Your task to perform on an android device: toggle show notifications on the lock screen Image 0: 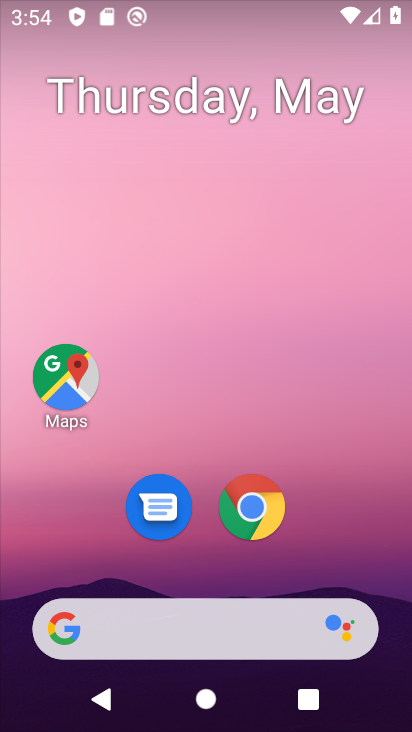
Step 0: drag from (349, 607) to (215, 30)
Your task to perform on an android device: toggle show notifications on the lock screen Image 1: 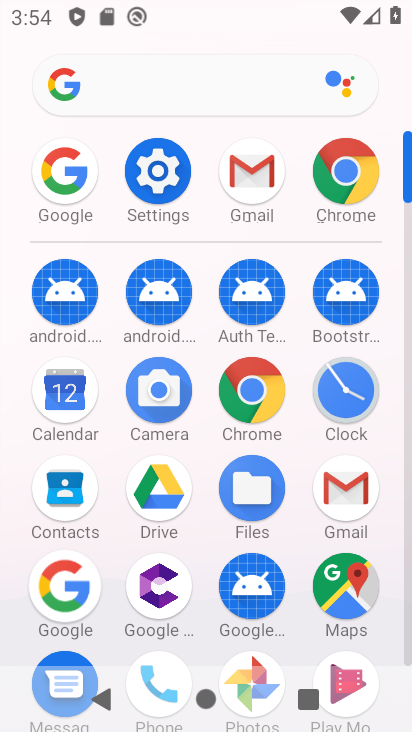
Step 1: click (167, 171)
Your task to perform on an android device: toggle show notifications on the lock screen Image 2: 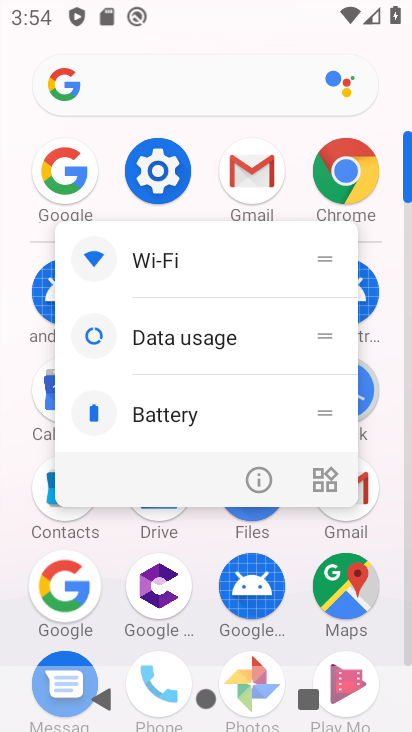
Step 2: click (163, 177)
Your task to perform on an android device: toggle show notifications on the lock screen Image 3: 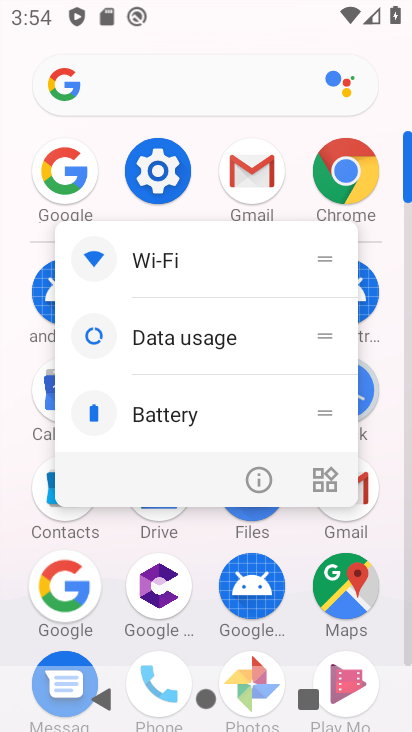
Step 3: click (157, 181)
Your task to perform on an android device: toggle show notifications on the lock screen Image 4: 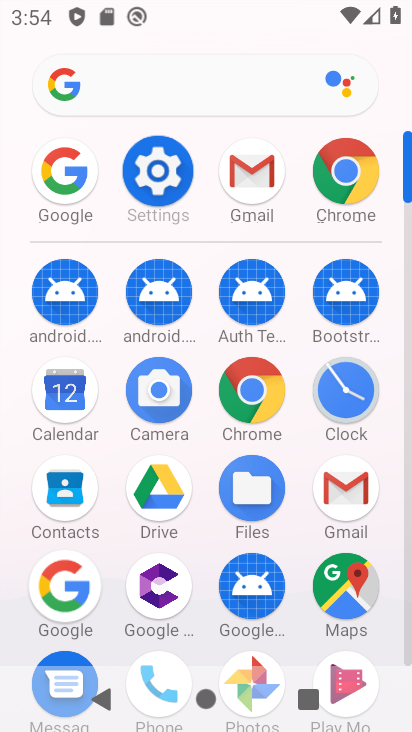
Step 4: click (159, 183)
Your task to perform on an android device: toggle show notifications on the lock screen Image 5: 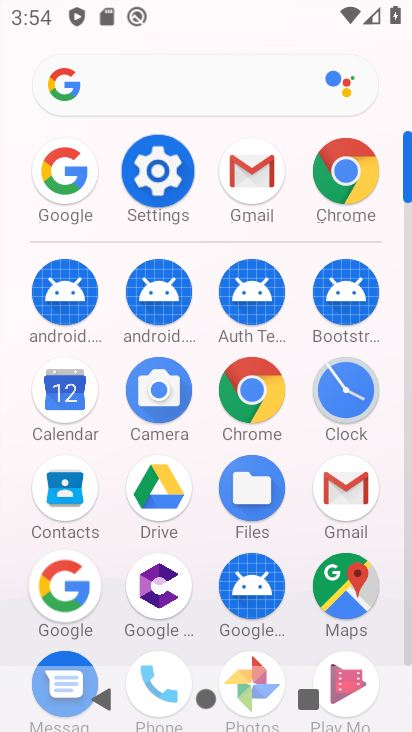
Step 5: click (163, 173)
Your task to perform on an android device: toggle show notifications on the lock screen Image 6: 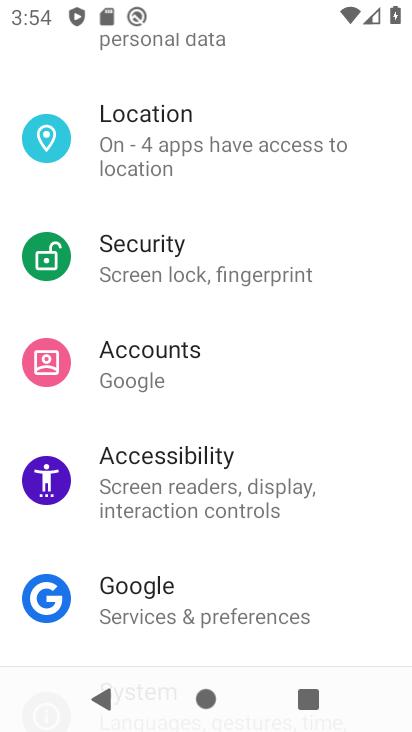
Step 6: click (165, 173)
Your task to perform on an android device: toggle show notifications on the lock screen Image 7: 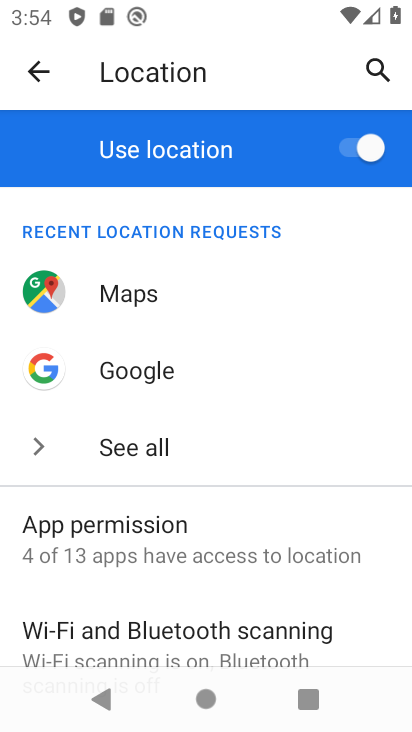
Step 7: click (44, 74)
Your task to perform on an android device: toggle show notifications on the lock screen Image 8: 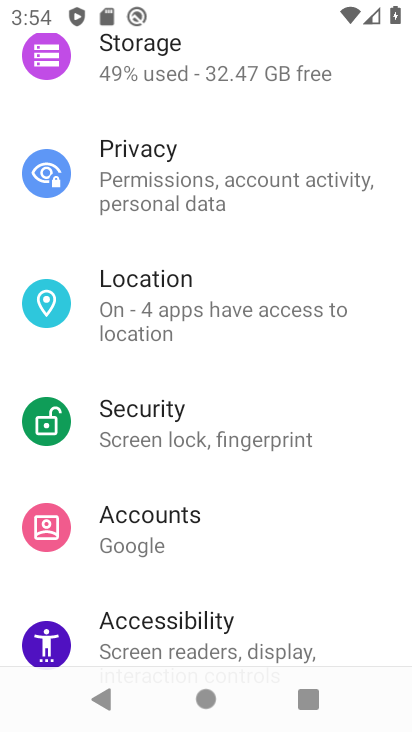
Step 8: drag from (166, 245) to (264, 479)
Your task to perform on an android device: toggle show notifications on the lock screen Image 9: 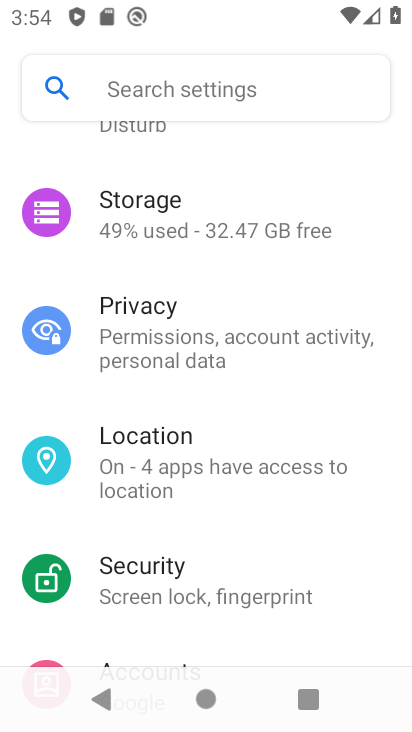
Step 9: drag from (149, 183) to (291, 509)
Your task to perform on an android device: toggle show notifications on the lock screen Image 10: 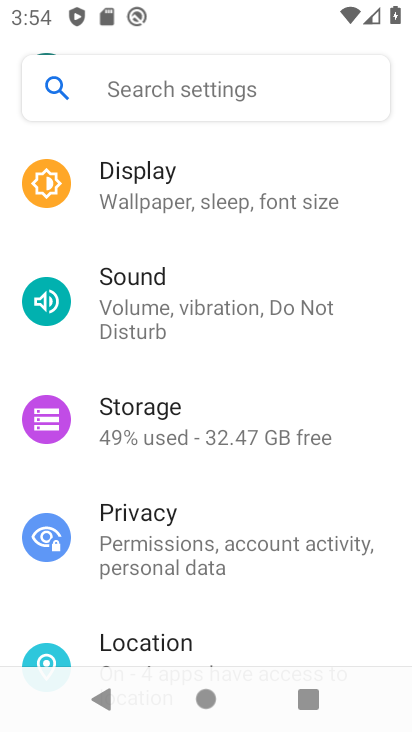
Step 10: drag from (244, 239) to (313, 521)
Your task to perform on an android device: toggle show notifications on the lock screen Image 11: 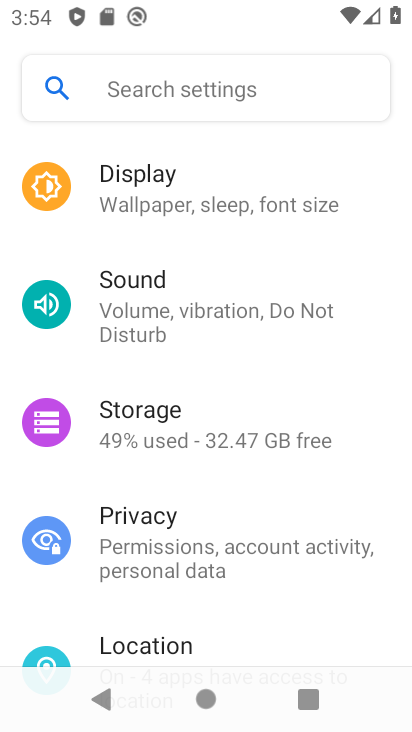
Step 11: drag from (260, 335) to (323, 523)
Your task to perform on an android device: toggle show notifications on the lock screen Image 12: 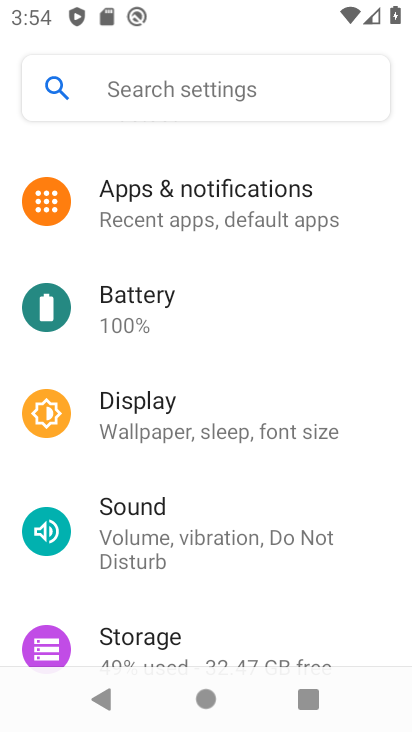
Step 12: drag from (221, 276) to (282, 505)
Your task to perform on an android device: toggle show notifications on the lock screen Image 13: 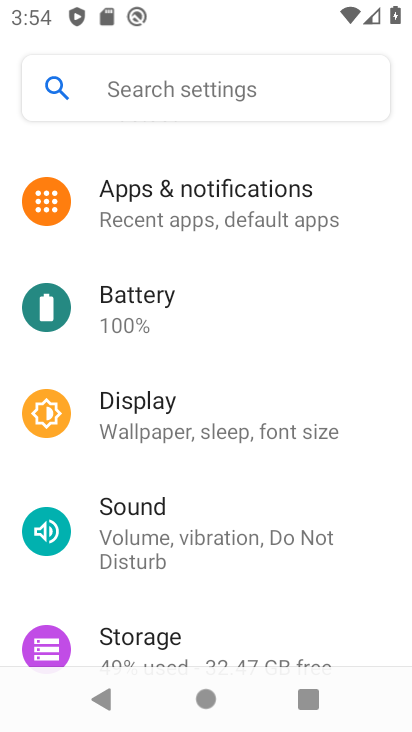
Step 13: drag from (200, 332) to (253, 597)
Your task to perform on an android device: toggle show notifications on the lock screen Image 14: 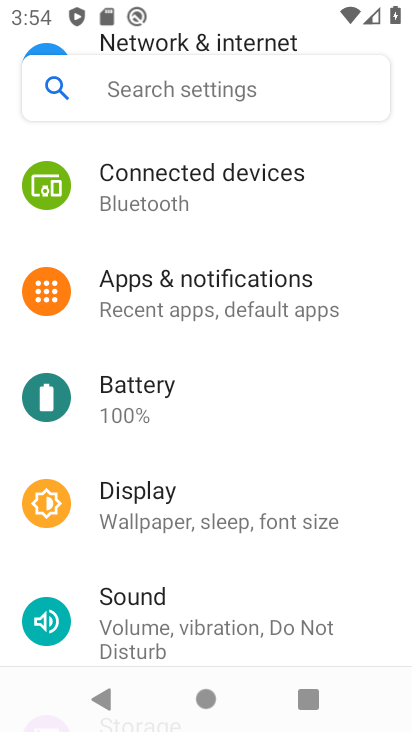
Step 14: drag from (177, 289) to (256, 565)
Your task to perform on an android device: toggle show notifications on the lock screen Image 15: 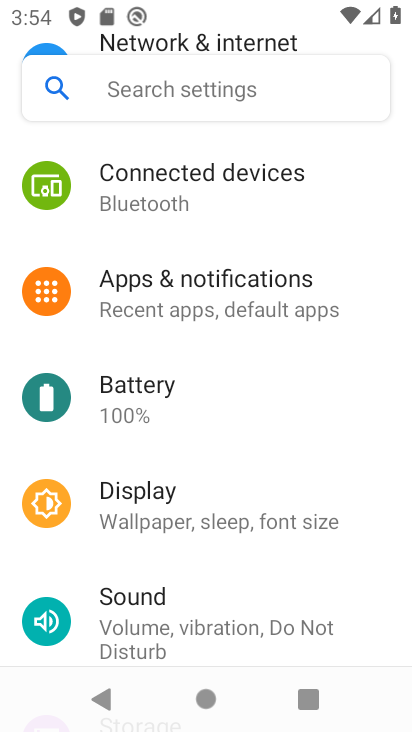
Step 15: drag from (199, 278) to (289, 609)
Your task to perform on an android device: toggle show notifications on the lock screen Image 16: 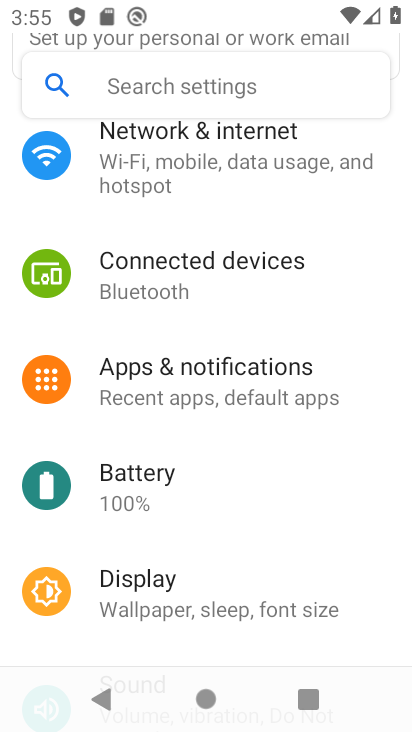
Step 16: drag from (199, 471) to (148, 190)
Your task to perform on an android device: toggle show notifications on the lock screen Image 17: 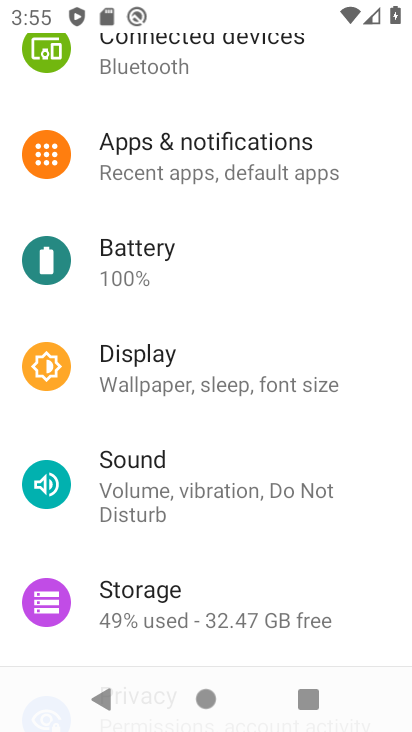
Step 17: drag from (211, 530) to (195, 159)
Your task to perform on an android device: toggle show notifications on the lock screen Image 18: 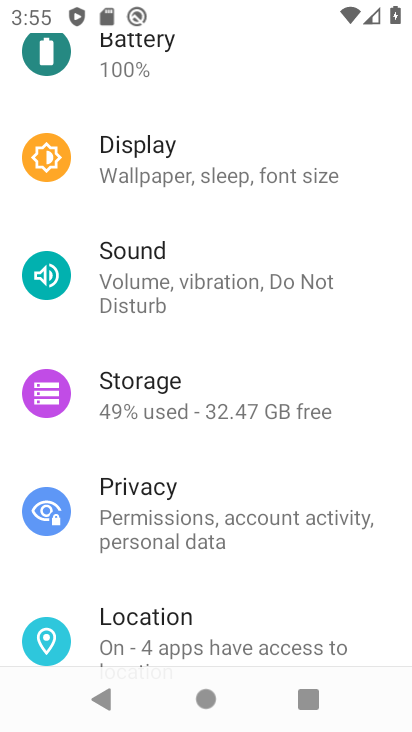
Step 18: click (166, 400)
Your task to perform on an android device: toggle show notifications on the lock screen Image 19: 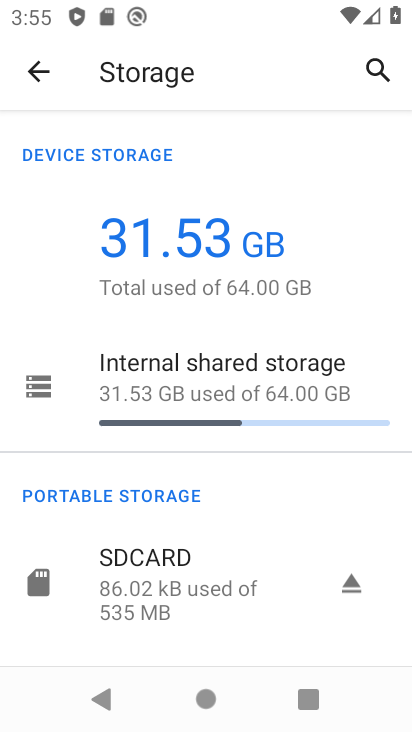
Step 19: click (32, 77)
Your task to perform on an android device: toggle show notifications on the lock screen Image 20: 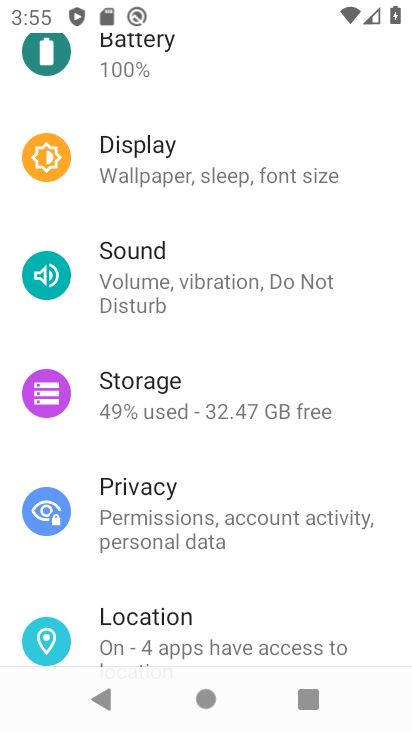
Step 20: click (175, 24)
Your task to perform on an android device: toggle show notifications on the lock screen Image 21: 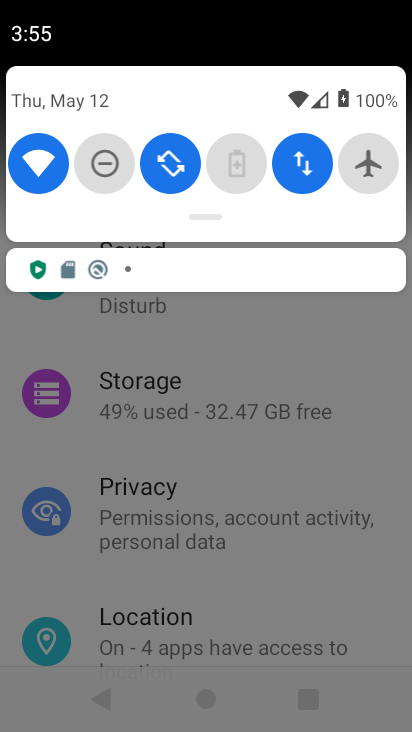
Step 21: drag from (187, 349) to (143, 85)
Your task to perform on an android device: toggle show notifications on the lock screen Image 22: 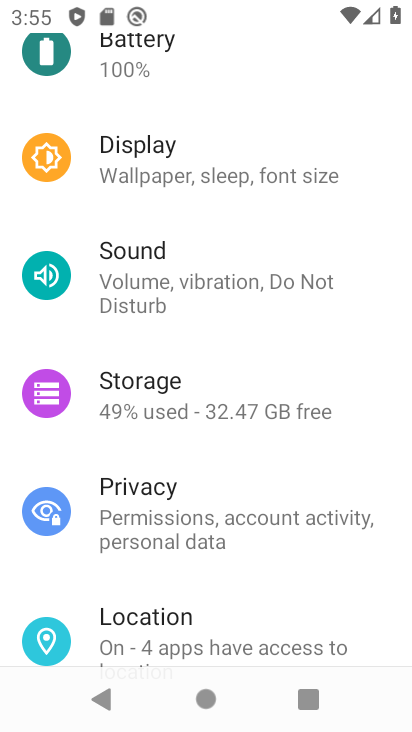
Step 22: drag from (202, 367) to (204, 84)
Your task to perform on an android device: toggle show notifications on the lock screen Image 23: 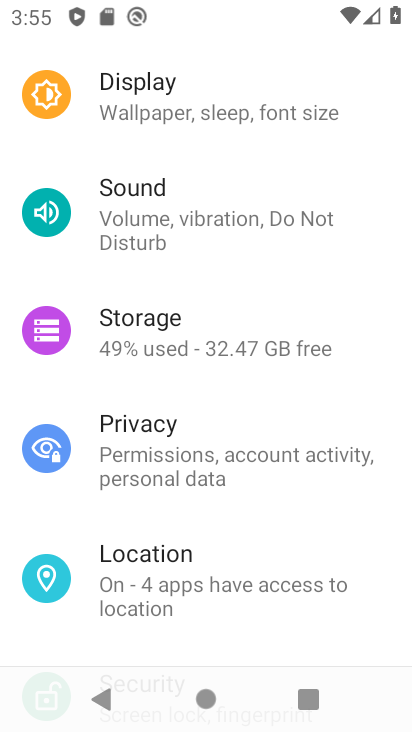
Step 23: drag from (202, 438) to (175, 114)
Your task to perform on an android device: toggle show notifications on the lock screen Image 24: 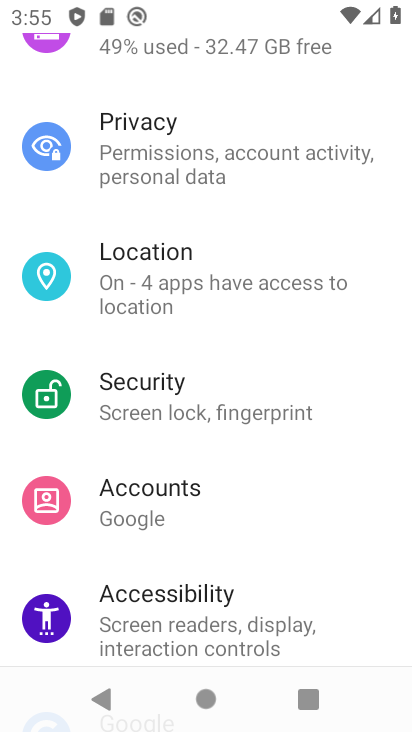
Step 24: drag from (154, 154) to (197, 496)
Your task to perform on an android device: toggle show notifications on the lock screen Image 25: 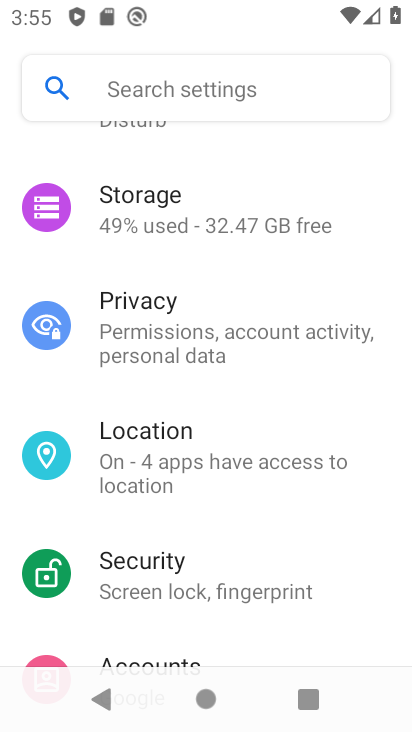
Step 25: drag from (167, 128) to (239, 484)
Your task to perform on an android device: toggle show notifications on the lock screen Image 26: 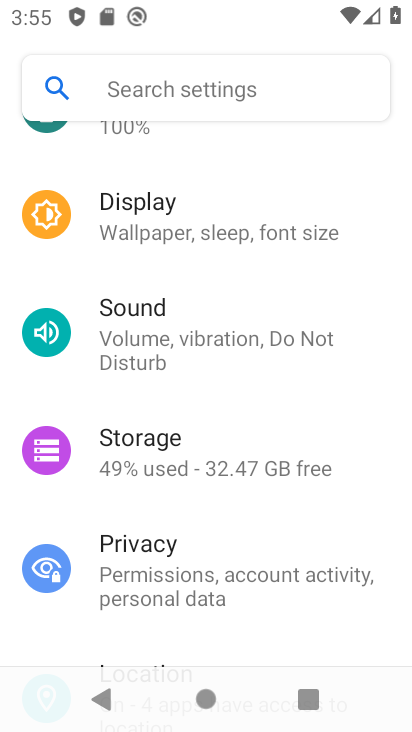
Step 26: drag from (185, 203) to (273, 489)
Your task to perform on an android device: toggle show notifications on the lock screen Image 27: 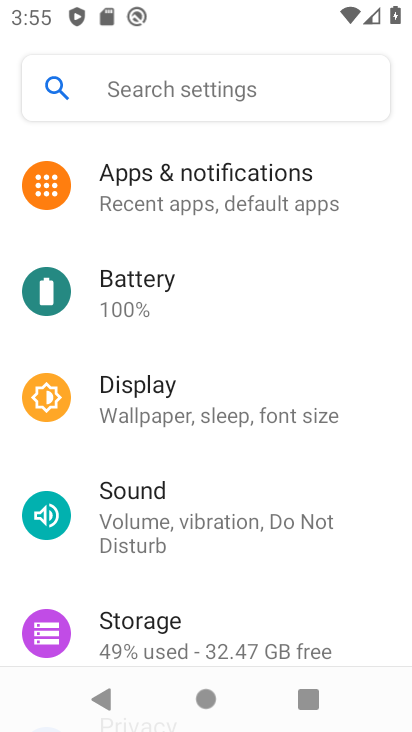
Step 27: drag from (235, 146) to (282, 493)
Your task to perform on an android device: toggle show notifications on the lock screen Image 28: 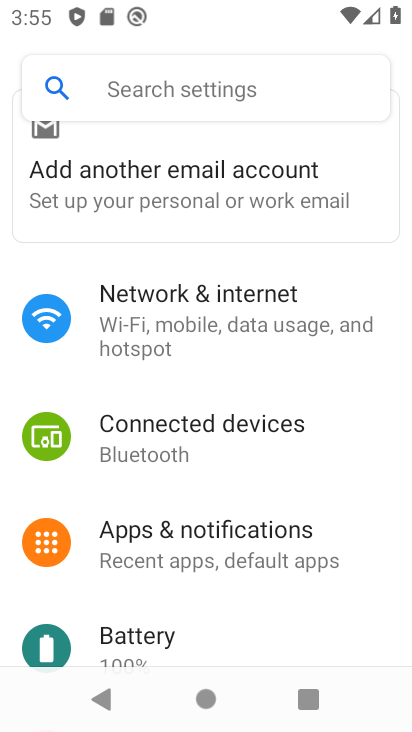
Step 28: drag from (187, 195) to (227, 472)
Your task to perform on an android device: toggle show notifications on the lock screen Image 29: 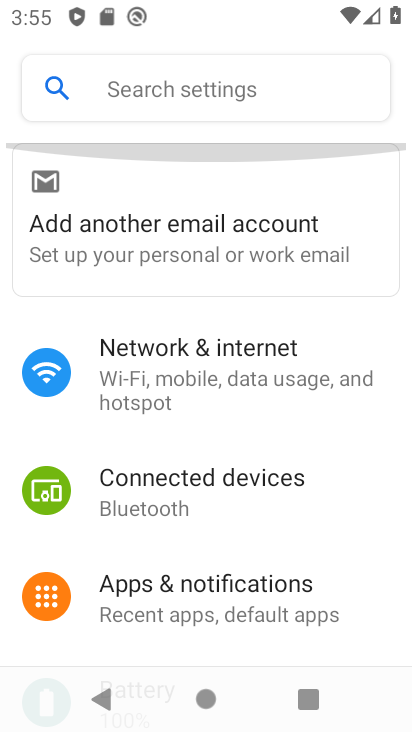
Step 29: drag from (157, 253) to (178, 528)
Your task to perform on an android device: toggle show notifications on the lock screen Image 30: 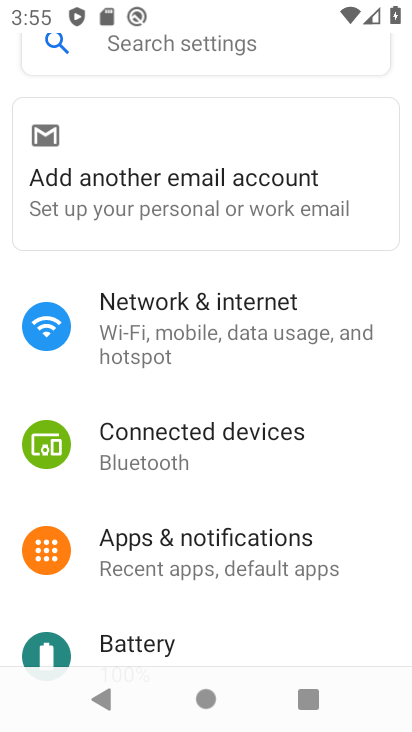
Step 30: click (189, 224)
Your task to perform on an android device: toggle show notifications on the lock screen Image 31: 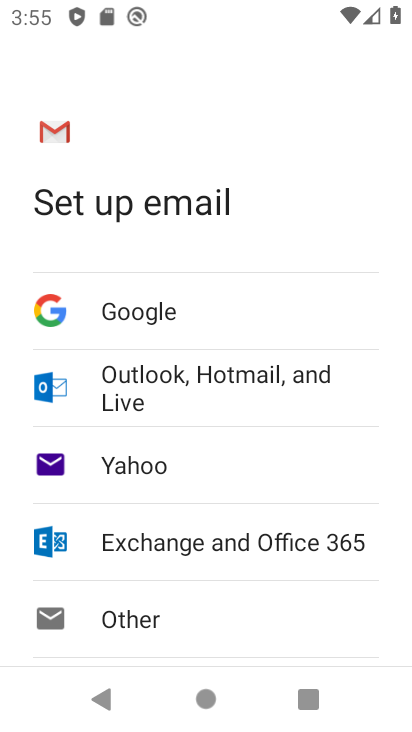
Step 31: press back button
Your task to perform on an android device: toggle show notifications on the lock screen Image 32: 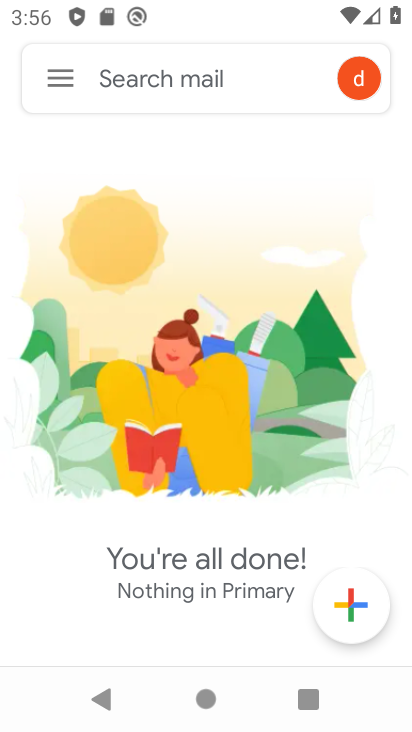
Step 32: drag from (205, 380) to (139, 151)
Your task to perform on an android device: toggle show notifications on the lock screen Image 33: 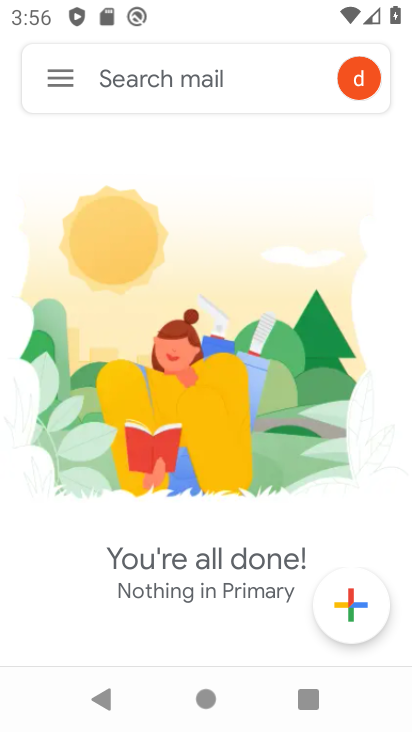
Step 33: drag from (257, 459) to (186, 128)
Your task to perform on an android device: toggle show notifications on the lock screen Image 34: 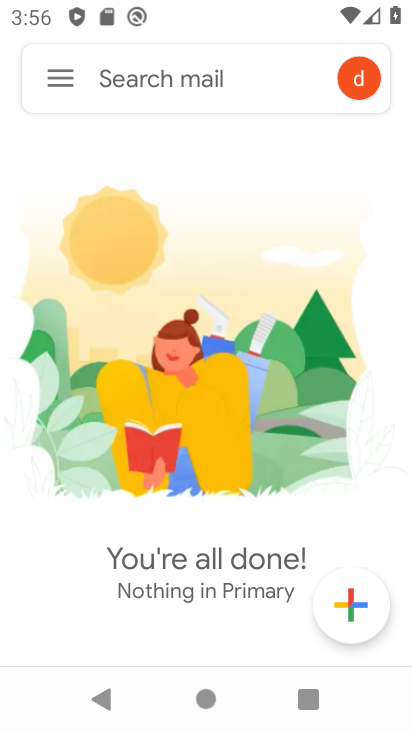
Step 34: drag from (215, 404) to (134, 38)
Your task to perform on an android device: toggle show notifications on the lock screen Image 35: 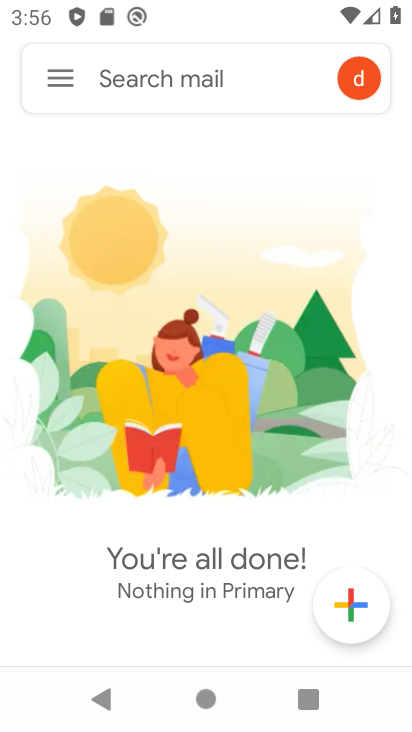
Step 35: drag from (226, 367) to (185, 105)
Your task to perform on an android device: toggle show notifications on the lock screen Image 36: 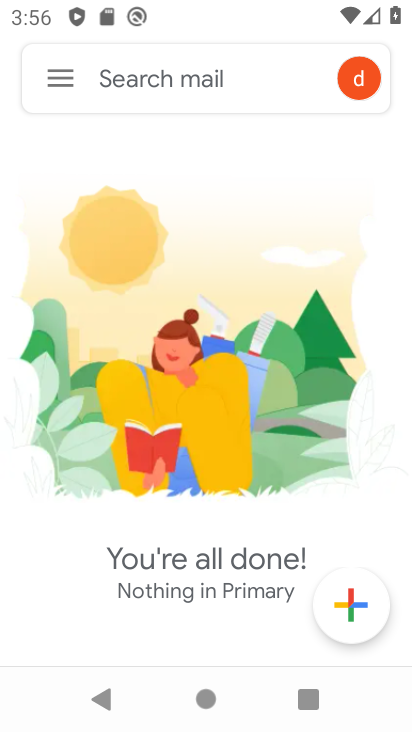
Step 36: drag from (207, 377) to (166, 137)
Your task to perform on an android device: toggle show notifications on the lock screen Image 37: 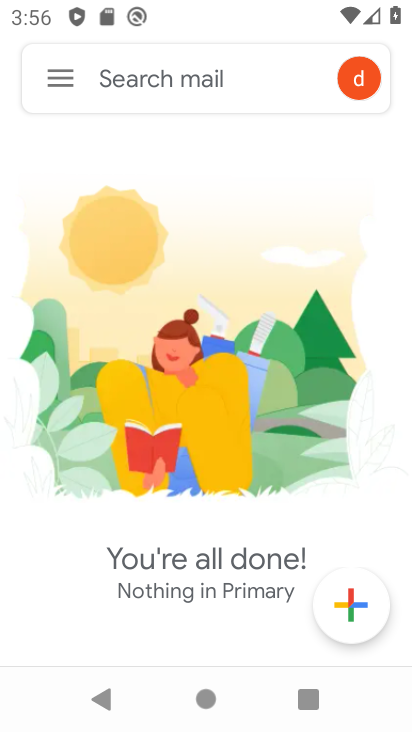
Step 37: press home button
Your task to perform on an android device: toggle show notifications on the lock screen Image 38: 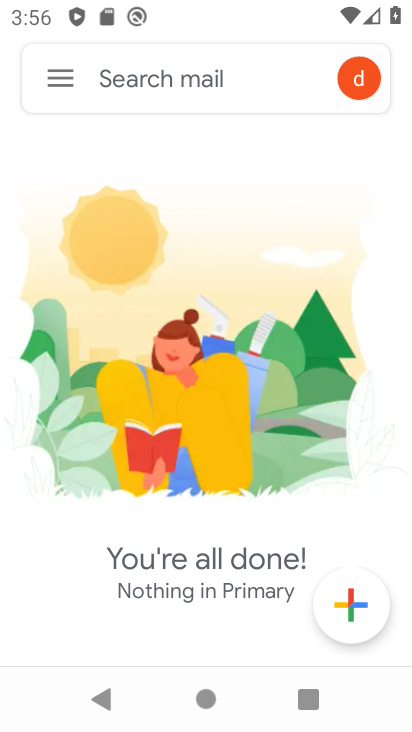
Step 38: press home button
Your task to perform on an android device: toggle show notifications on the lock screen Image 39: 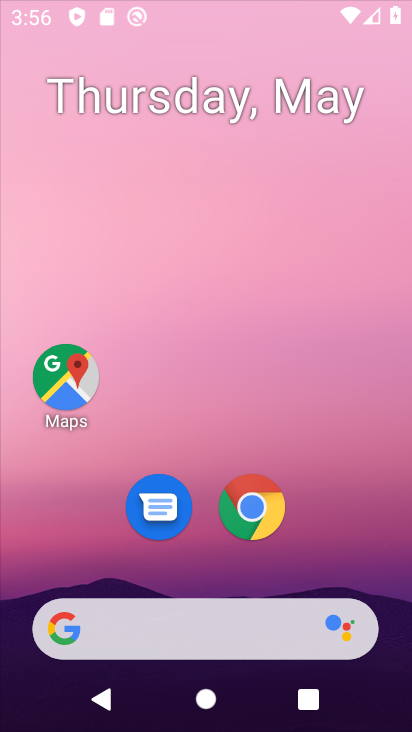
Step 39: press home button
Your task to perform on an android device: toggle show notifications on the lock screen Image 40: 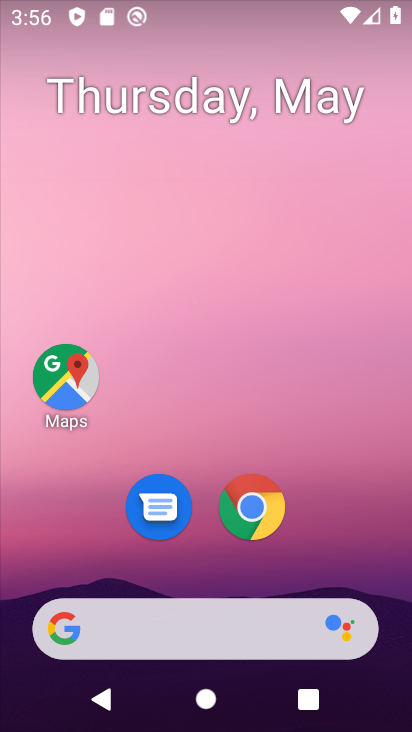
Step 40: press home button
Your task to perform on an android device: toggle show notifications on the lock screen Image 41: 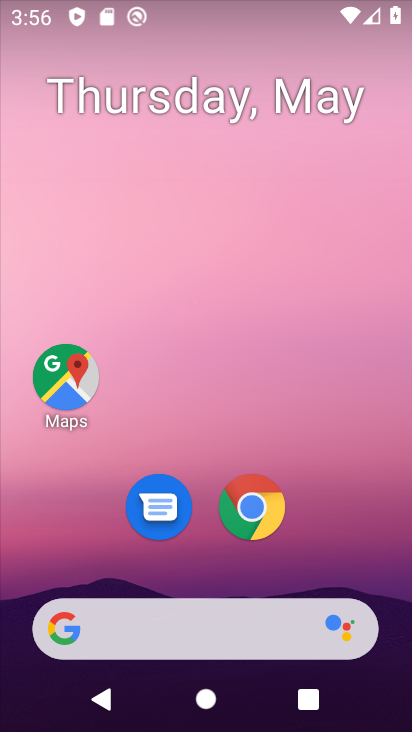
Step 41: press home button
Your task to perform on an android device: toggle show notifications on the lock screen Image 42: 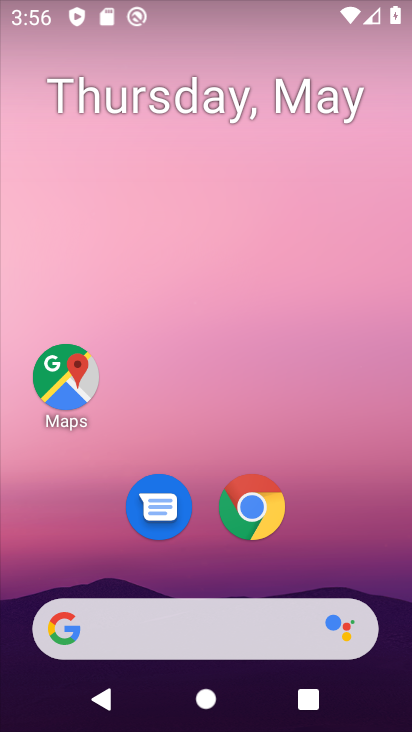
Step 42: drag from (304, 555) to (137, 4)
Your task to perform on an android device: toggle show notifications on the lock screen Image 43: 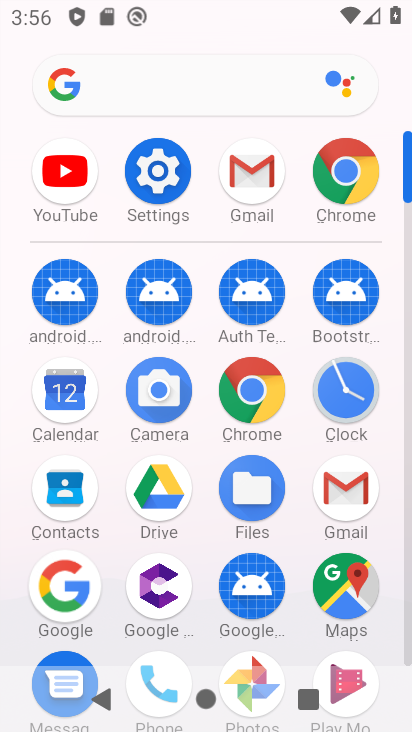
Step 43: drag from (257, 440) to (193, 7)
Your task to perform on an android device: toggle show notifications on the lock screen Image 44: 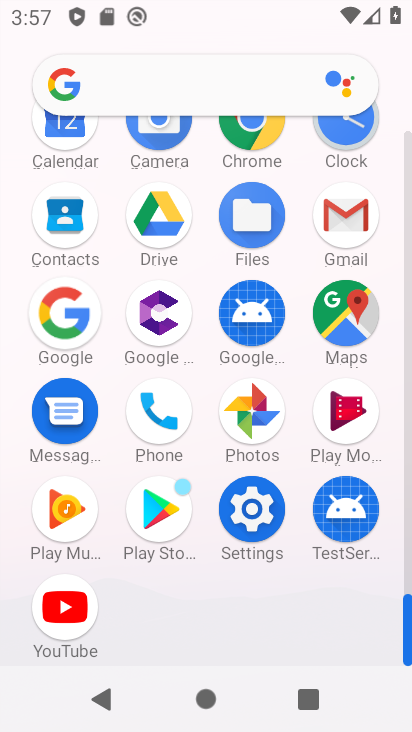
Step 44: click (249, 519)
Your task to perform on an android device: toggle show notifications on the lock screen Image 45: 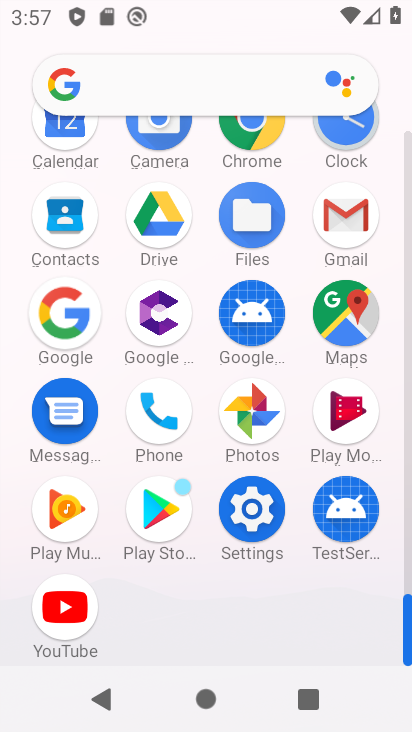
Step 45: click (252, 516)
Your task to perform on an android device: toggle show notifications on the lock screen Image 46: 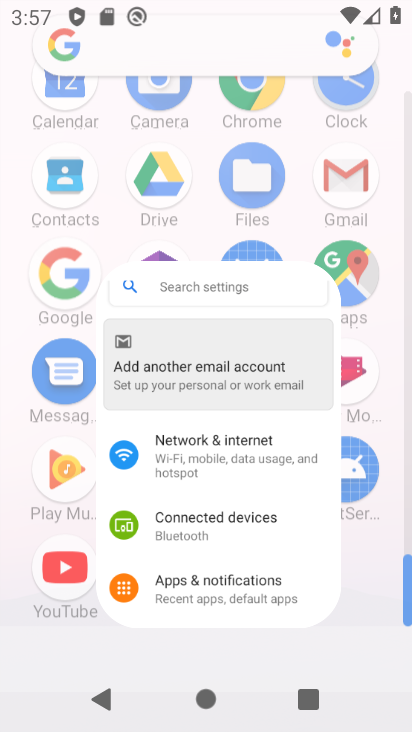
Step 46: click (252, 516)
Your task to perform on an android device: toggle show notifications on the lock screen Image 47: 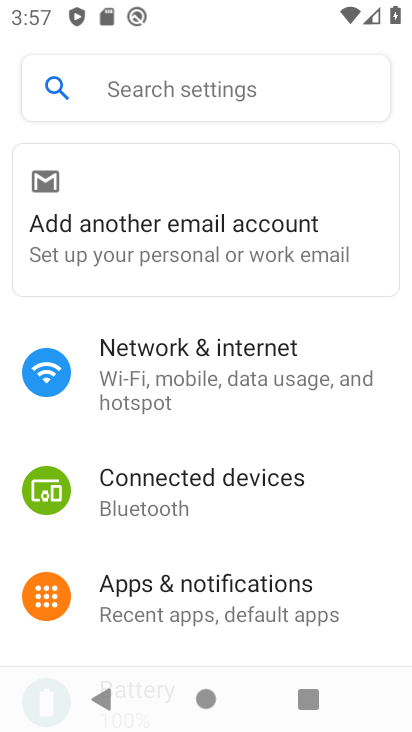
Step 47: drag from (207, 556) to (174, 191)
Your task to perform on an android device: toggle show notifications on the lock screen Image 48: 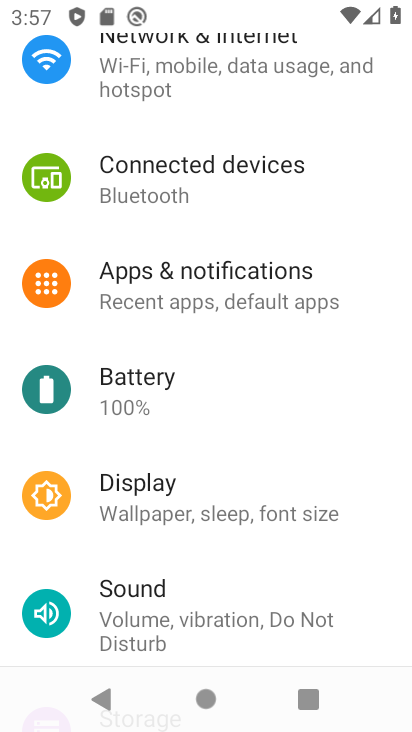
Step 48: drag from (174, 419) to (173, 217)
Your task to perform on an android device: toggle show notifications on the lock screen Image 49: 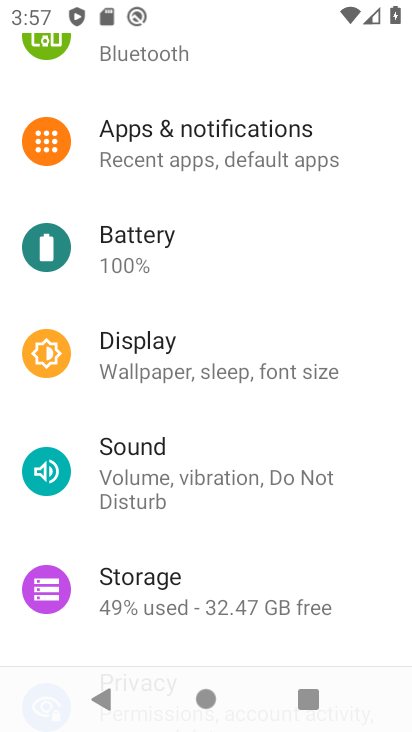
Step 49: click (194, 145)
Your task to perform on an android device: toggle show notifications on the lock screen Image 50: 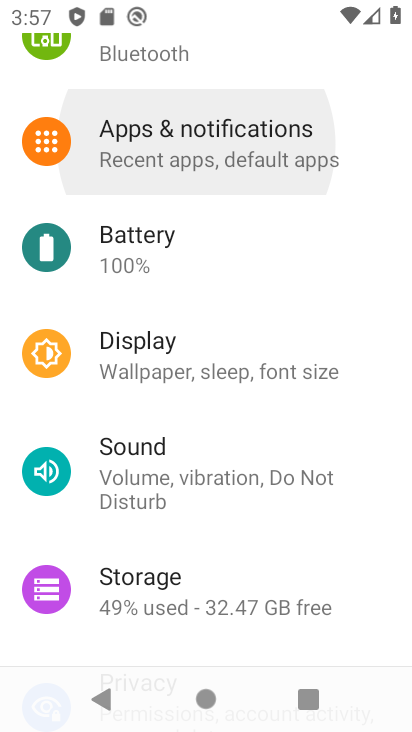
Step 50: click (194, 145)
Your task to perform on an android device: toggle show notifications on the lock screen Image 51: 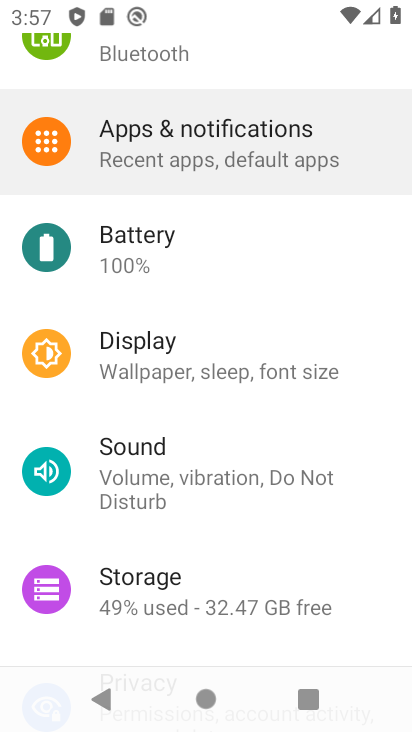
Step 51: click (194, 146)
Your task to perform on an android device: toggle show notifications on the lock screen Image 52: 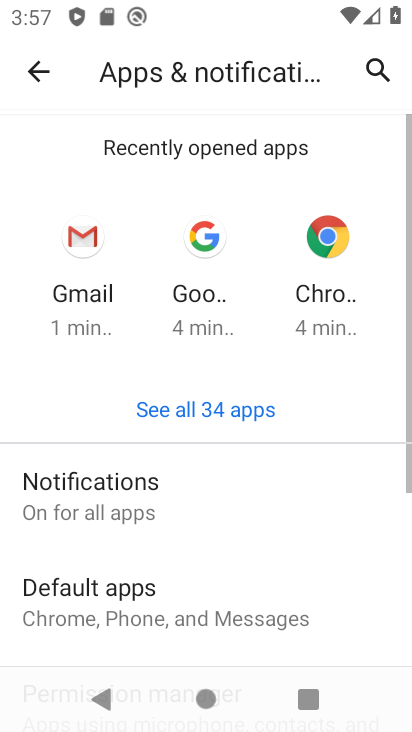
Step 52: drag from (196, 499) to (128, 64)
Your task to perform on an android device: toggle show notifications on the lock screen Image 53: 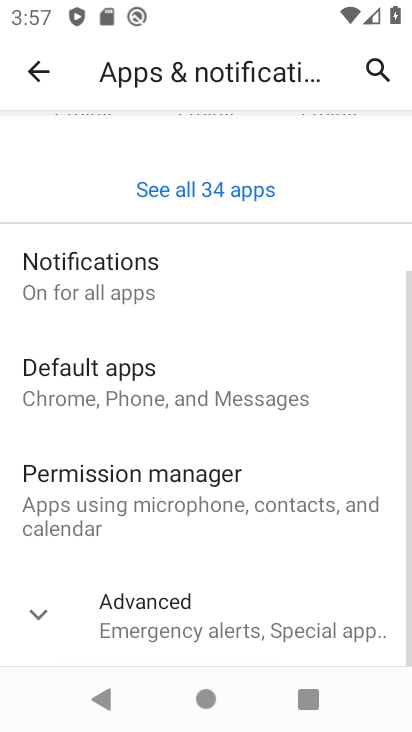
Step 53: click (149, 18)
Your task to perform on an android device: toggle show notifications on the lock screen Image 54: 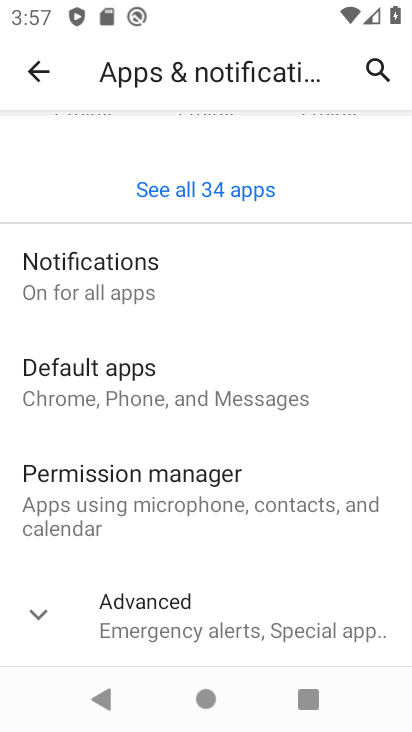
Step 54: drag from (246, 413) to (206, 19)
Your task to perform on an android device: toggle show notifications on the lock screen Image 55: 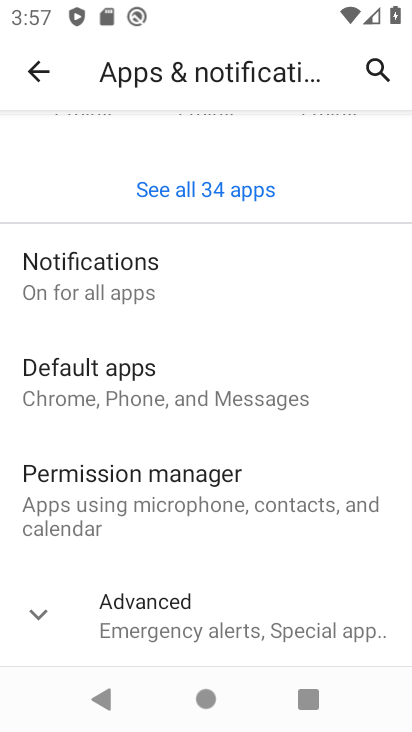
Step 55: drag from (238, 270) to (258, 34)
Your task to perform on an android device: toggle show notifications on the lock screen Image 56: 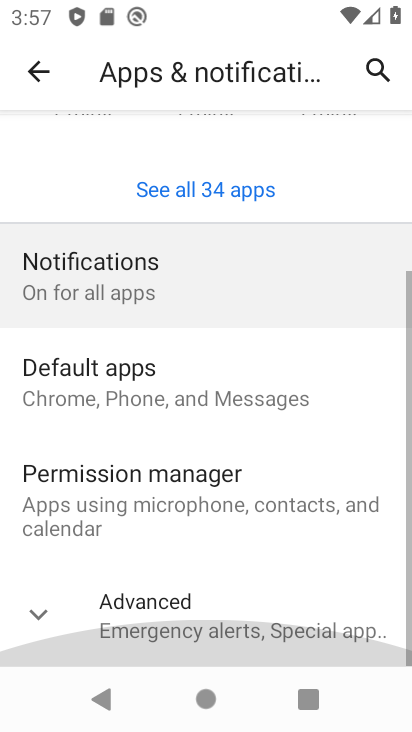
Step 56: drag from (331, 392) to (270, 3)
Your task to perform on an android device: toggle show notifications on the lock screen Image 57: 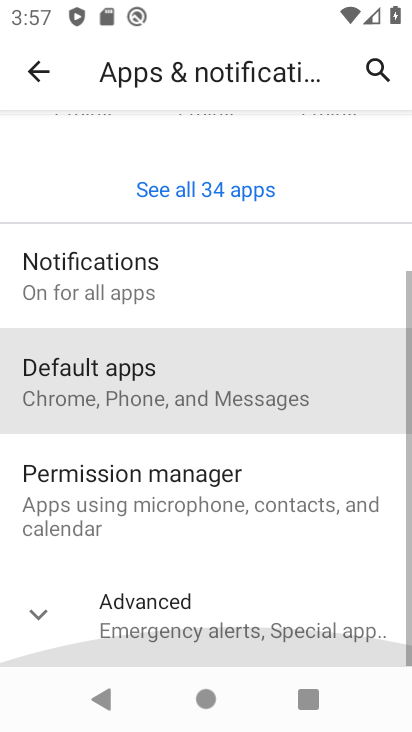
Step 57: drag from (205, 398) to (192, 43)
Your task to perform on an android device: toggle show notifications on the lock screen Image 58: 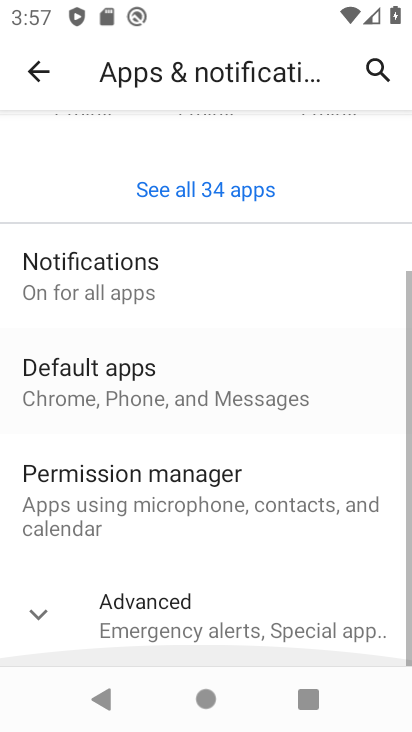
Step 58: drag from (243, 537) to (164, 27)
Your task to perform on an android device: toggle show notifications on the lock screen Image 59: 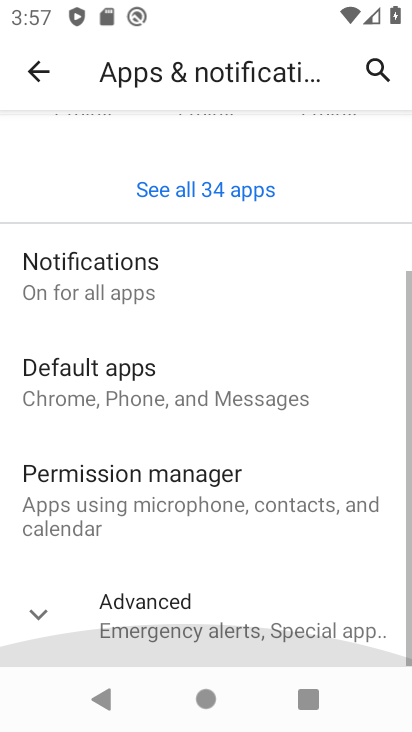
Step 59: drag from (113, 400) to (62, 74)
Your task to perform on an android device: toggle show notifications on the lock screen Image 60: 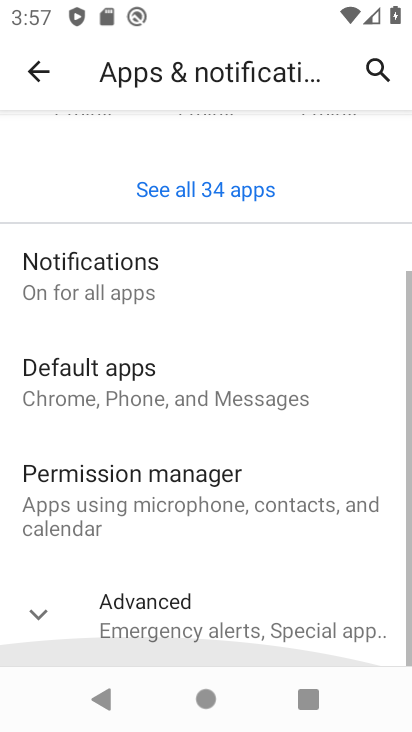
Step 60: drag from (150, 583) to (190, 251)
Your task to perform on an android device: toggle show notifications on the lock screen Image 61: 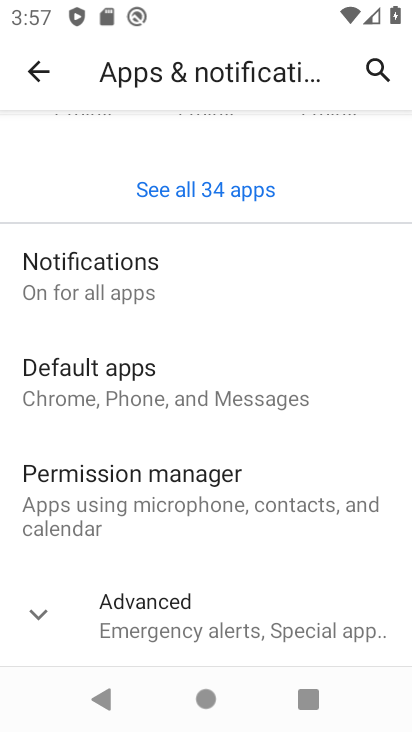
Step 61: click (58, 271)
Your task to perform on an android device: toggle show notifications on the lock screen Image 62: 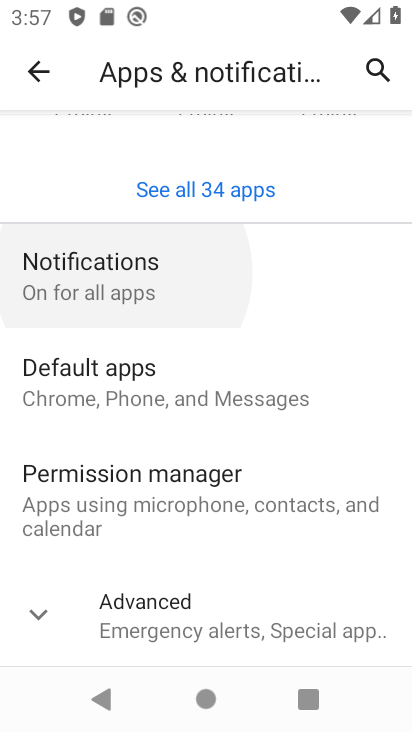
Step 62: click (58, 271)
Your task to perform on an android device: toggle show notifications on the lock screen Image 63: 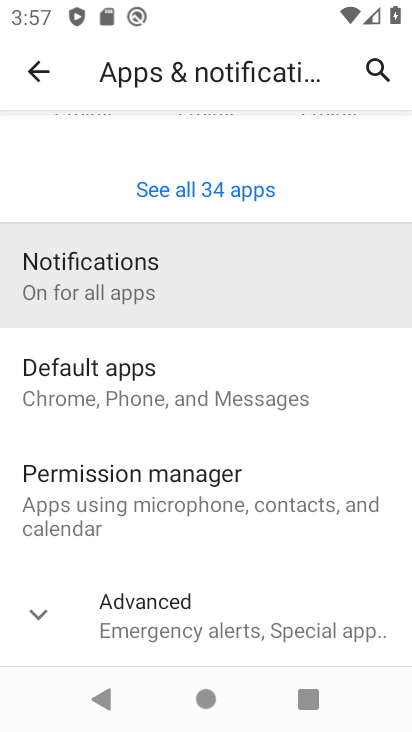
Step 63: click (58, 271)
Your task to perform on an android device: toggle show notifications on the lock screen Image 64: 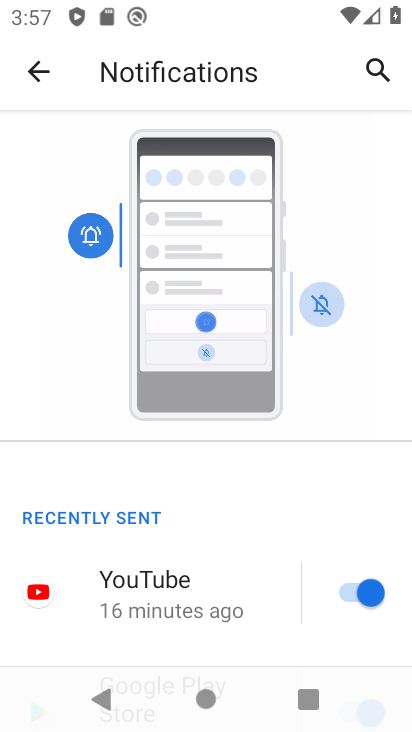
Step 64: drag from (182, 531) to (108, 228)
Your task to perform on an android device: toggle show notifications on the lock screen Image 65: 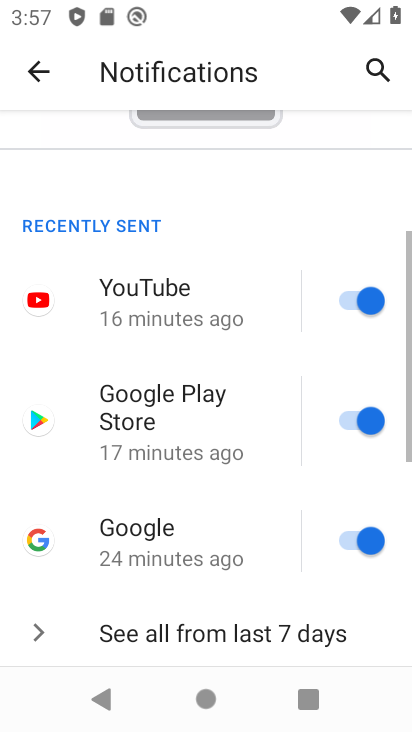
Step 65: drag from (271, 592) to (201, 192)
Your task to perform on an android device: toggle show notifications on the lock screen Image 66: 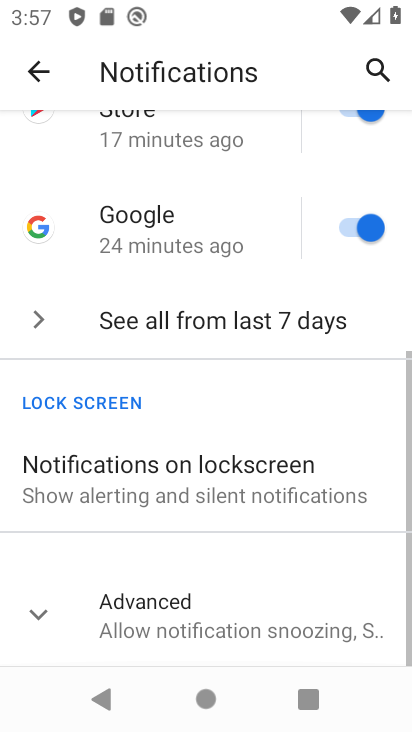
Step 66: drag from (278, 555) to (195, 161)
Your task to perform on an android device: toggle show notifications on the lock screen Image 67: 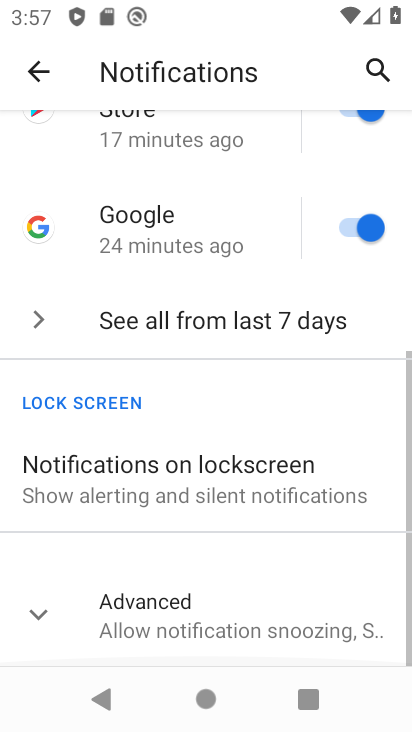
Step 67: drag from (247, 406) to (215, 5)
Your task to perform on an android device: toggle show notifications on the lock screen Image 68: 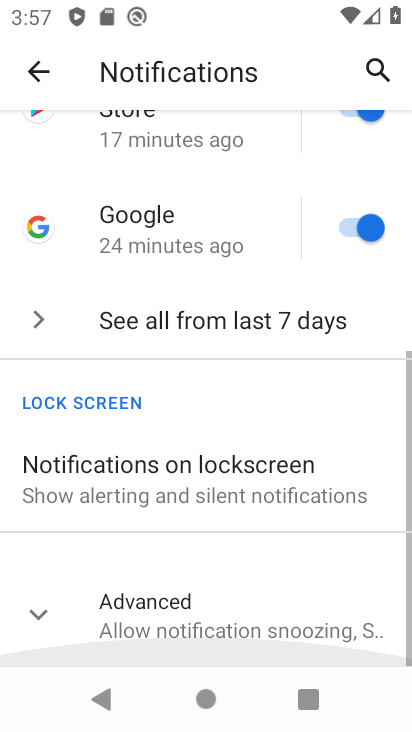
Step 68: drag from (261, 489) to (159, 172)
Your task to perform on an android device: toggle show notifications on the lock screen Image 69: 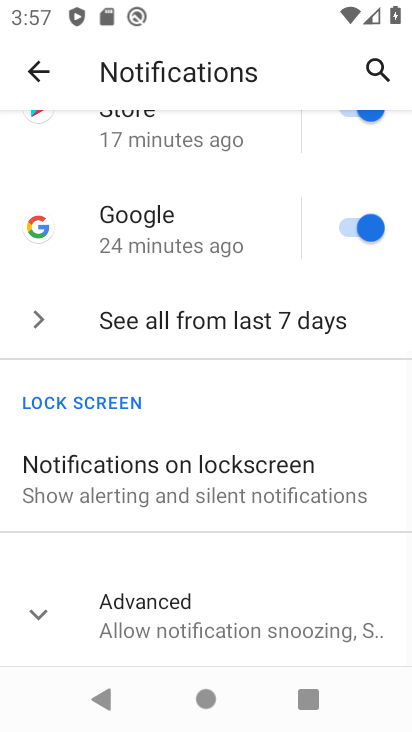
Step 69: click (166, 467)
Your task to perform on an android device: toggle show notifications on the lock screen Image 70: 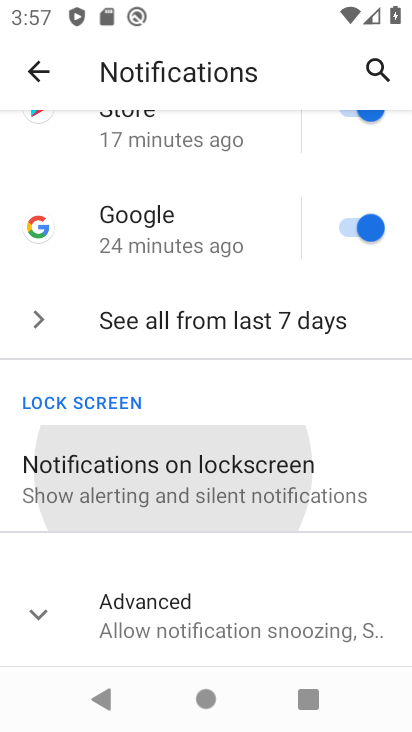
Step 70: click (165, 468)
Your task to perform on an android device: toggle show notifications on the lock screen Image 71: 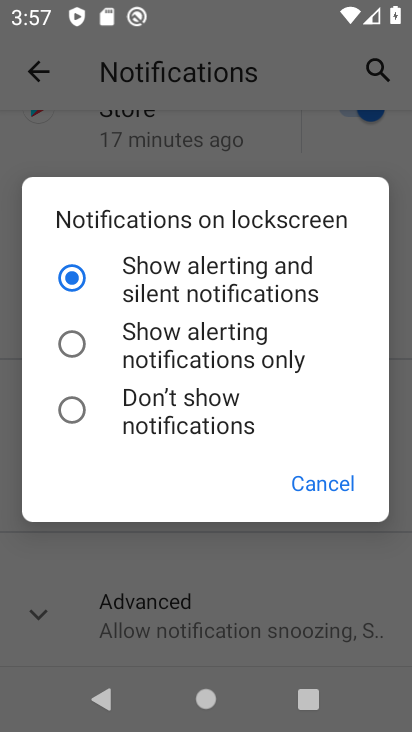
Step 71: click (165, 468)
Your task to perform on an android device: toggle show notifications on the lock screen Image 72: 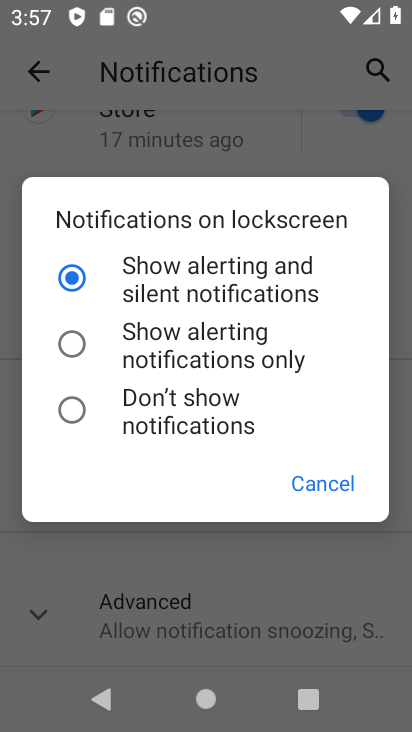
Step 72: click (165, 468)
Your task to perform on an android device: toggle show notifications on the lock screen Image 73: 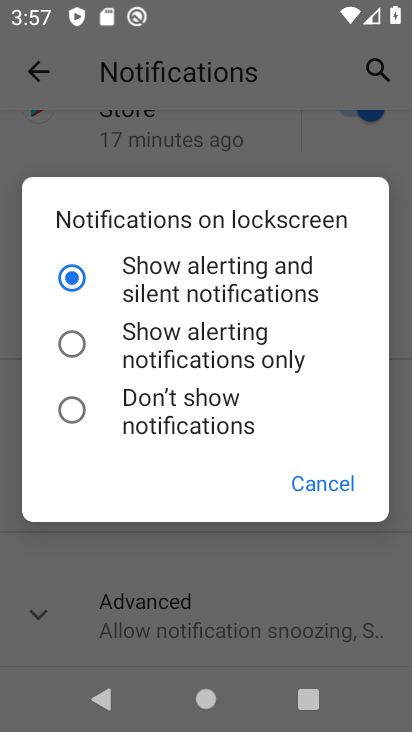
Step 73: click (327, 478)
Your task to perform on an android device: toggle show notifications on the lock screen Image 74: 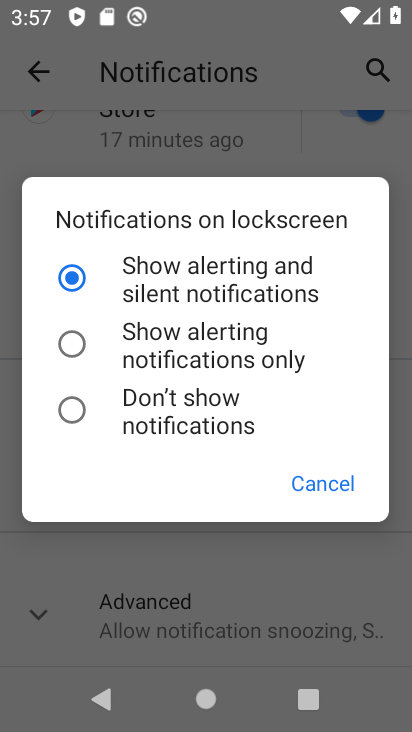
Step 74: click (327, 478)
Your task to perform on an android device: toggle show notifications on the lock screen Image 75: 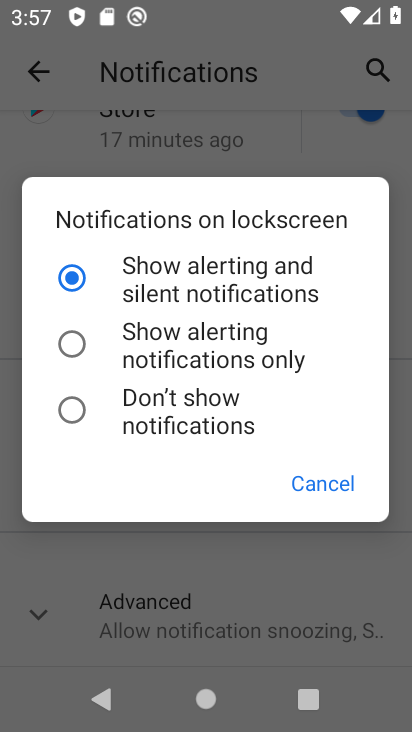
Step 75: task complete